Your task to perform on an android device: open a bookmark in the chrome app Image 0: 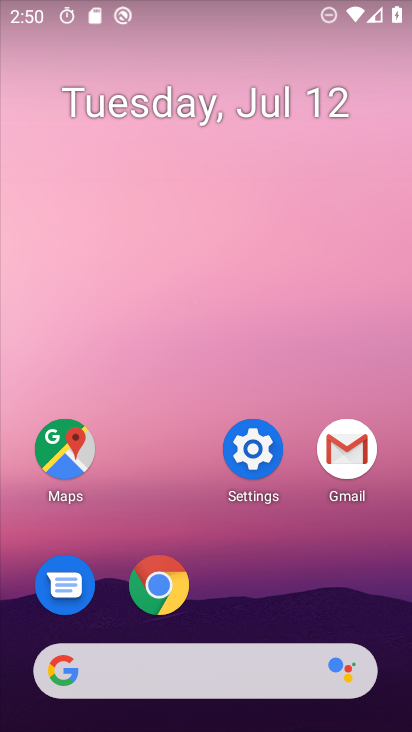
Step 0: click (172, 587)
Your task to perform on an android device: open a bookmark in the chrome app Image 1: 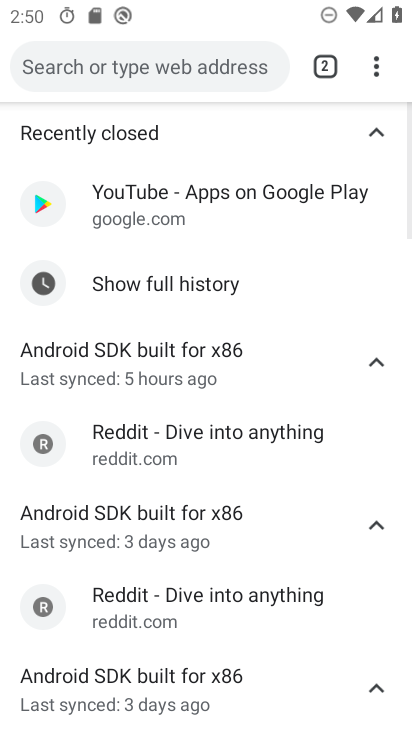
Step 1: click (373, 70)
Your task to perform on an android device: open a bookmark in the chrome app Image 2: 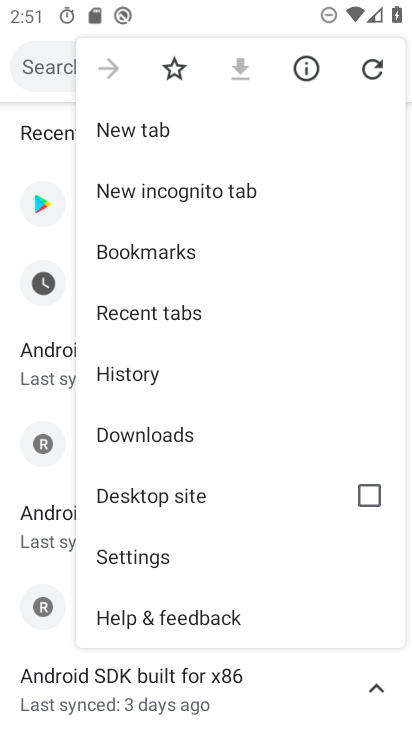
Step 2: click (133, 253)
Your task to perform on an android device: open a bookmark in the chrome app Image 3: 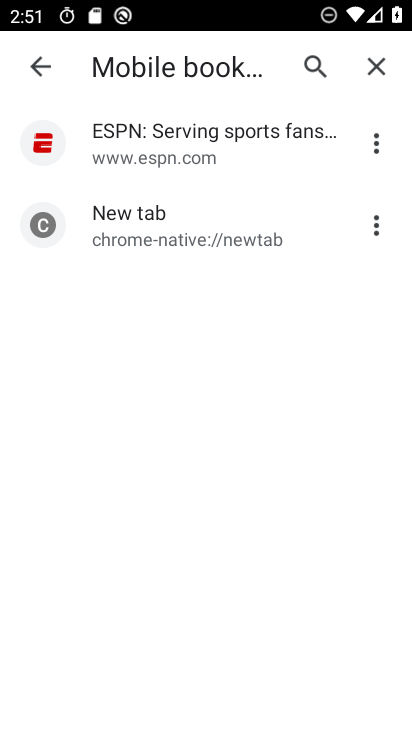
Step 3: click (373, 145)
Your task to perform on an android device: open a bookmark in the chrome app Image 4: 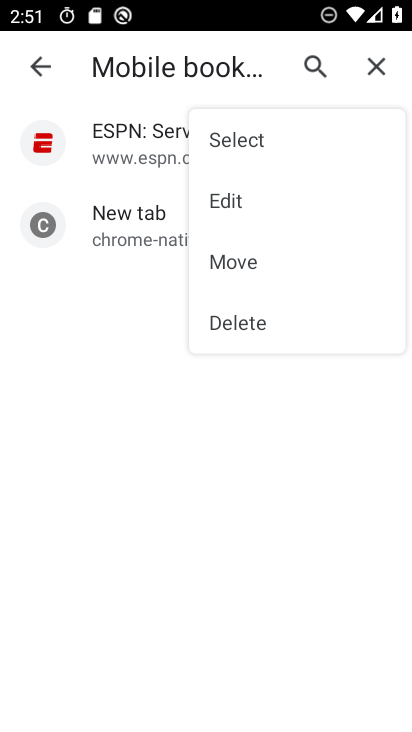
Step 4: click (126, 340)
Your task to perform on an android device: open a bookmark in the chrome app Image 5: 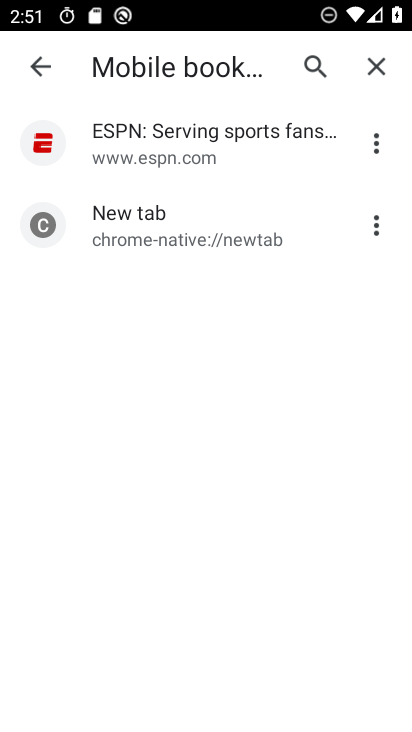
Step 5: click (129, 127)
Your task to perform on an android device: open a bookmark in the chrome app Image 6: 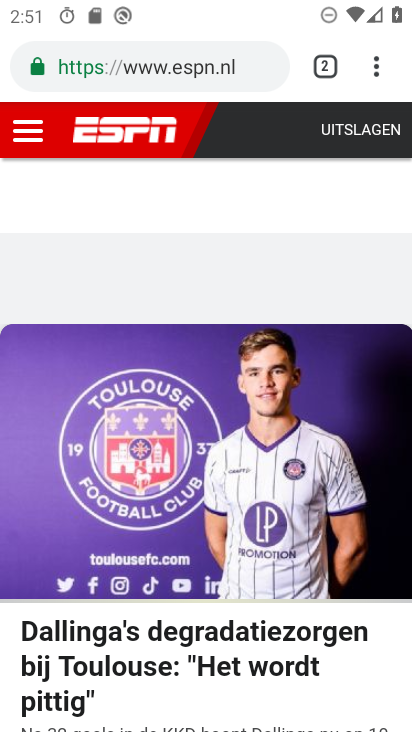
Step 6: task complete